Your task to perform on an android device: Turn off the flashlight Image 0: 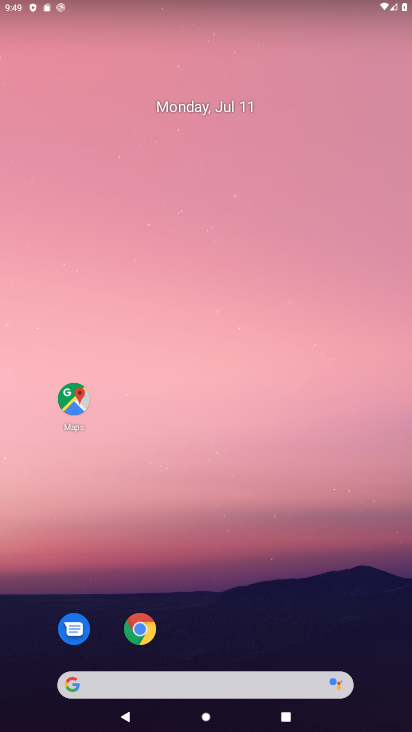
Step 0: drag from (262, 629) to (272, 33)
Your task to perform on an android device: Turn off the flashlight Image 1: 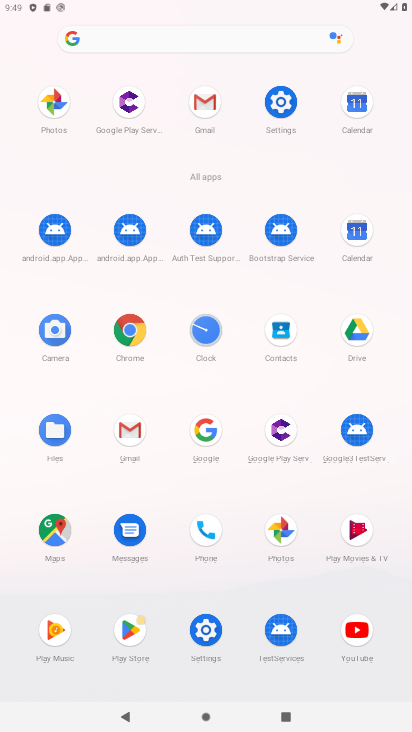
Step 1: click (269, 100)
Your task to perform on an android device: Turn off the flashlight Image 2: 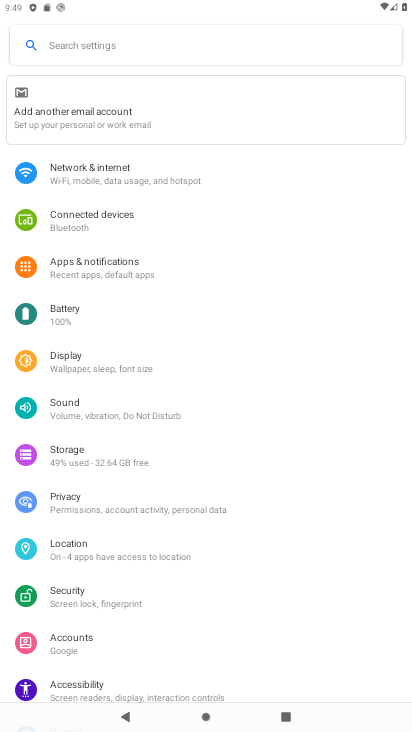
Step 2: click (267, 299)
Your task to perform on an android device: Turn off the flashlight Image 3: 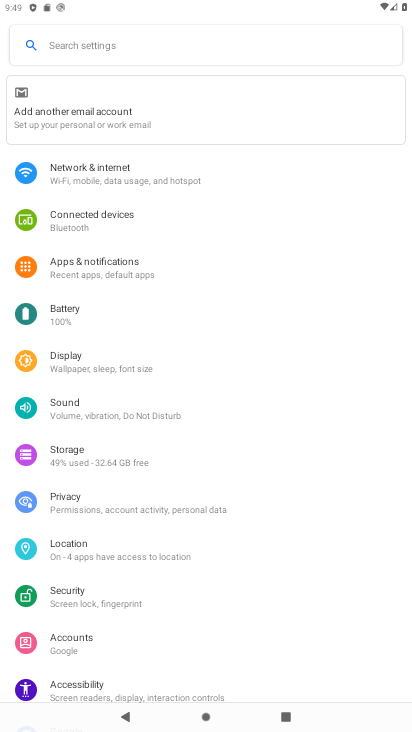
Step 3: task complete